Your task to perform on an android device: Find coffee shops on Maps Image 0: 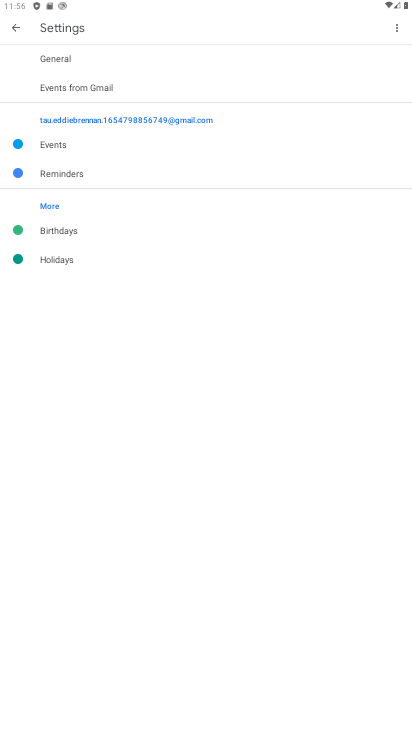
Step 0: press home button
Your task to perform on an android device: Find coffee shops on Maps Image 1: 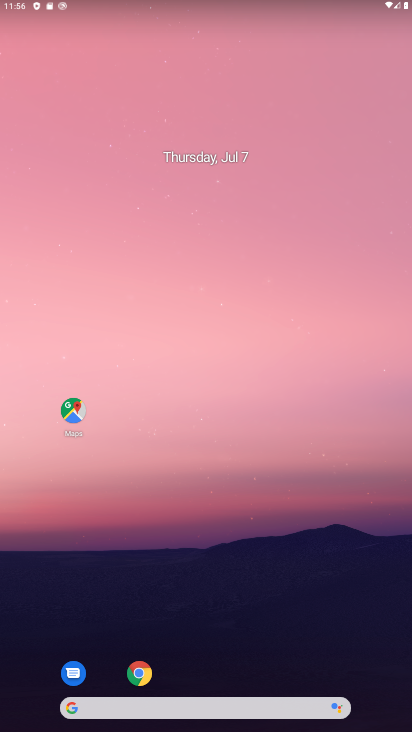
Step 1: click (72, 411)
Your task to perform on an android device: Find coffee shops on Maps Image 2: 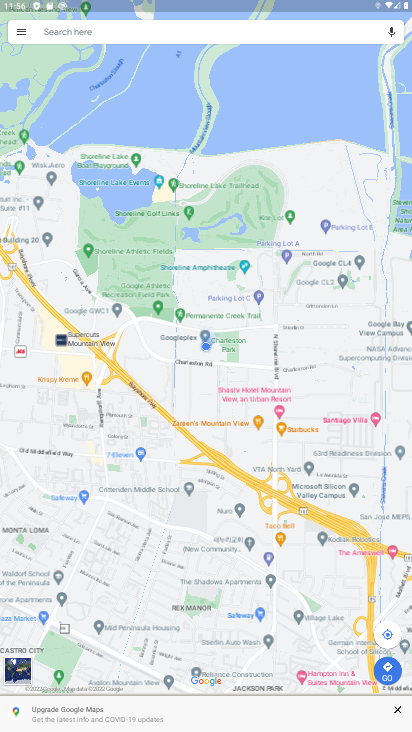
Step 2: click (164, 33)
Your task to perform on an android device: Find coffee shops on Maps Image 3: 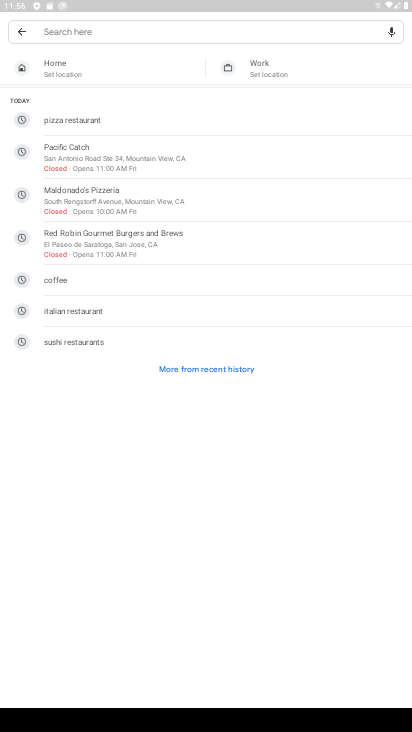
Step 3: type "coffee shops"
Your task to perform on an android device: Find coffee shops on Maps Image 4: 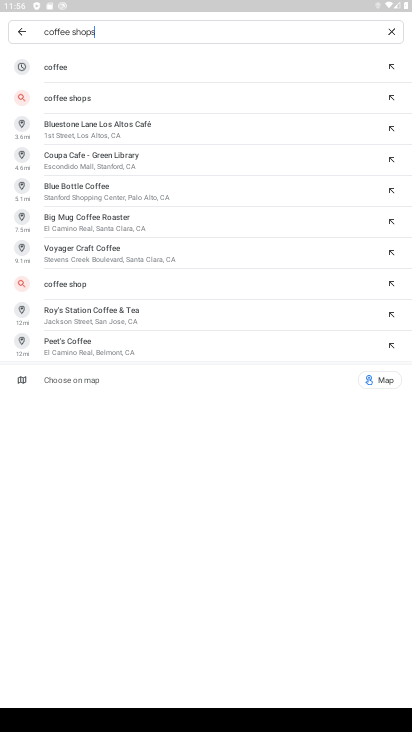
Step 4: click (93, 99)
Your task to perform on an android device: Find coffee shops on Maps Image 5: 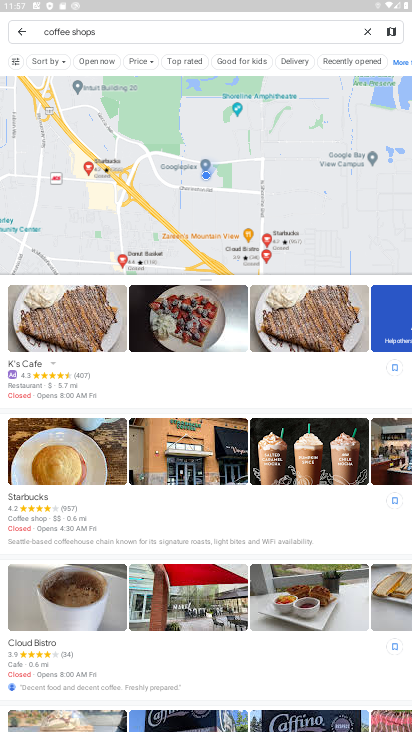
Step 5: task complete